Your task to perform on an android device: Go to Google Image 0: 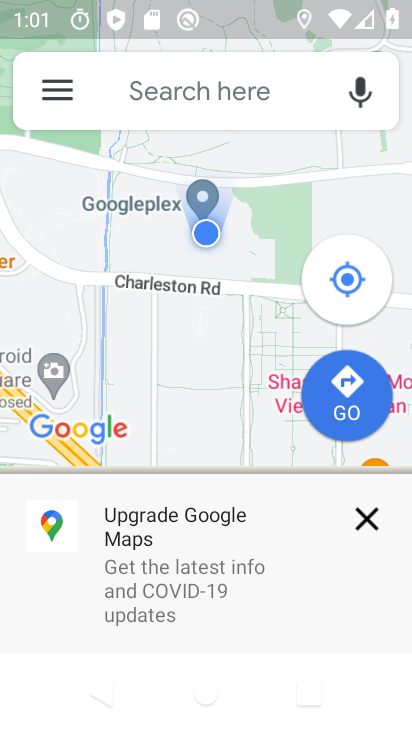
Step 0: press home button
Your task to perform on an android device: Go to Google Image 1: 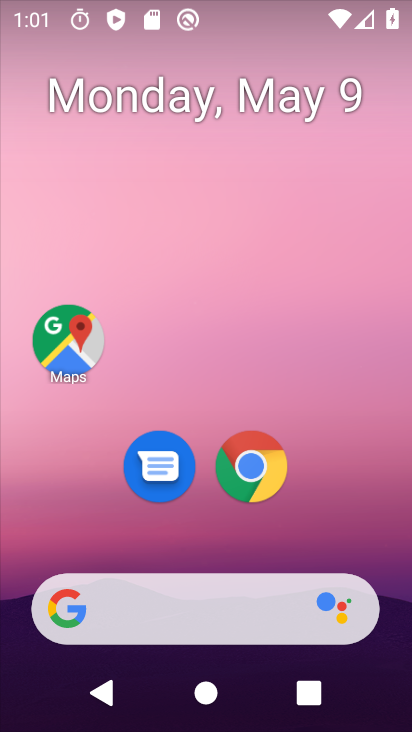
Step 1: drag from (136, 539) to (151, 68)
Your task to perform on an android device: Go to Google Image 2: 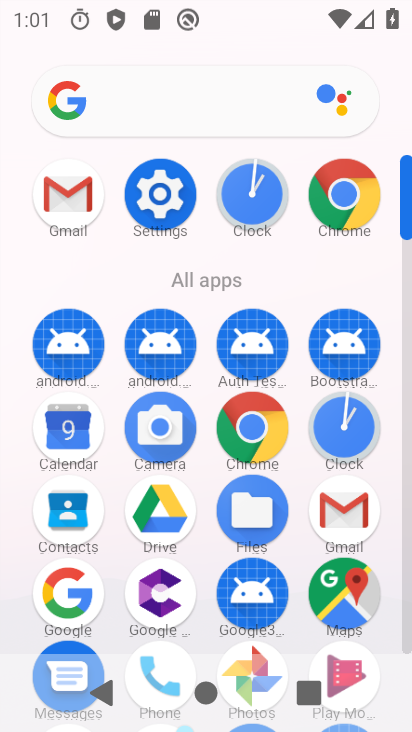
Step 2: drag from (176, 459) to (201, 162)
Your task to perform on an android device: Go to Google Image 3: 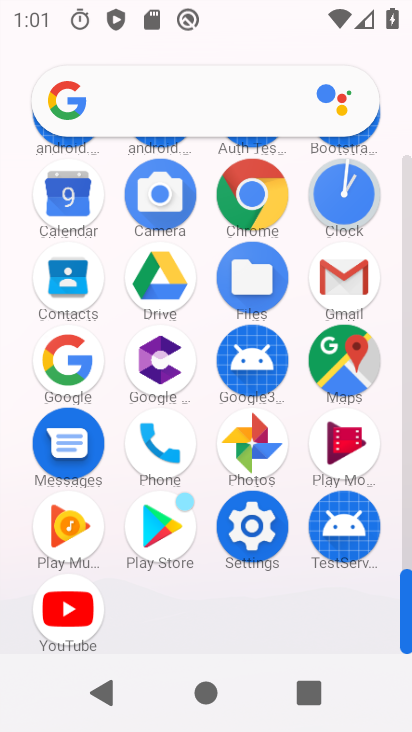
Step 3: click (77, 362)
Your task to perform on an android device: Go to Google Image 4: 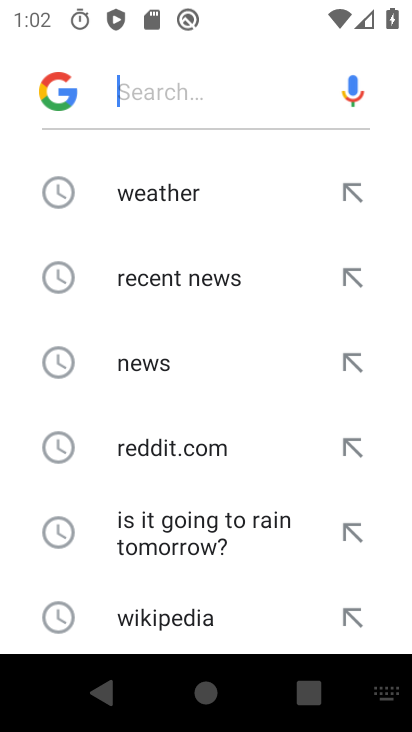
Step 4: task complete